Your task to perform on an android device: turn pop-ups off in chrome Image 0: 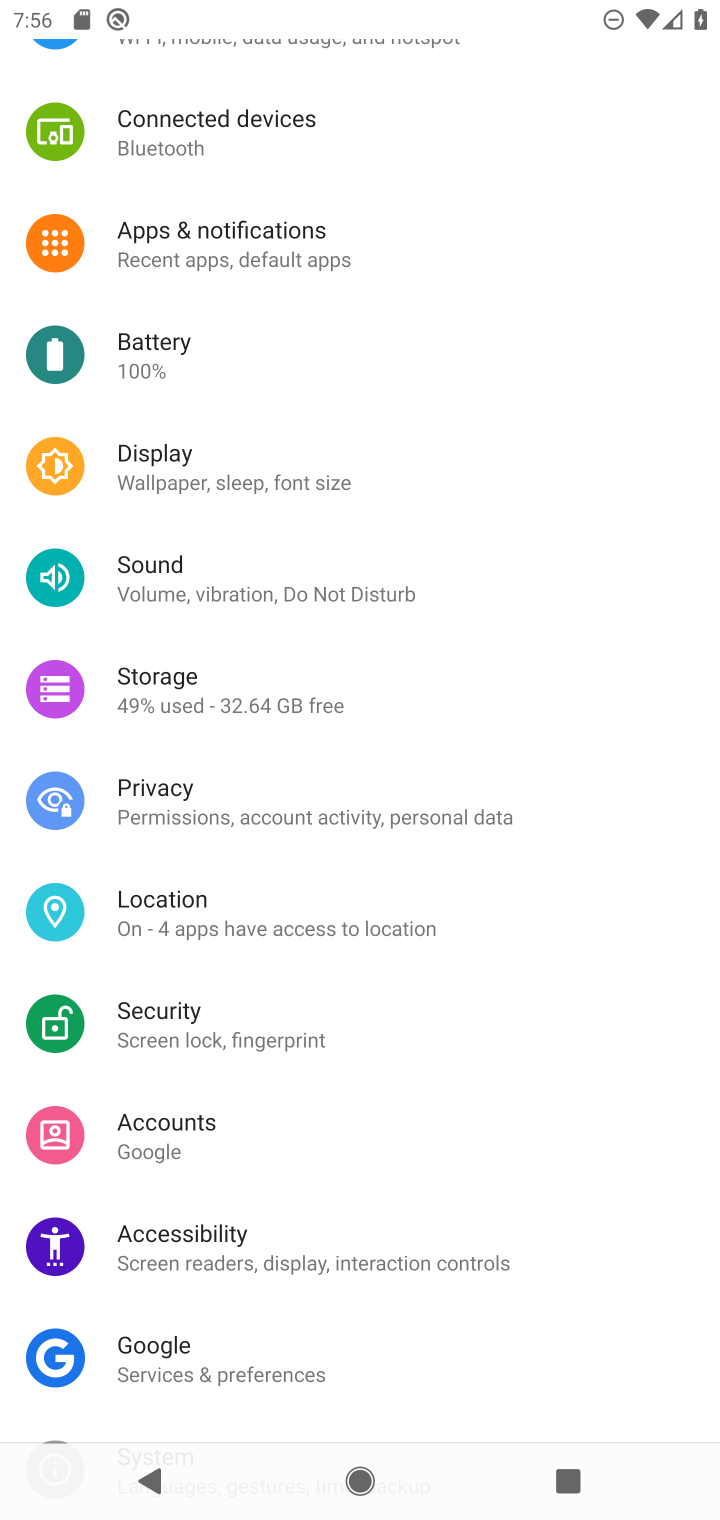
Step 0: press home button
Your task to perform on an android device: turn pop-ups off in chrome Image 1: 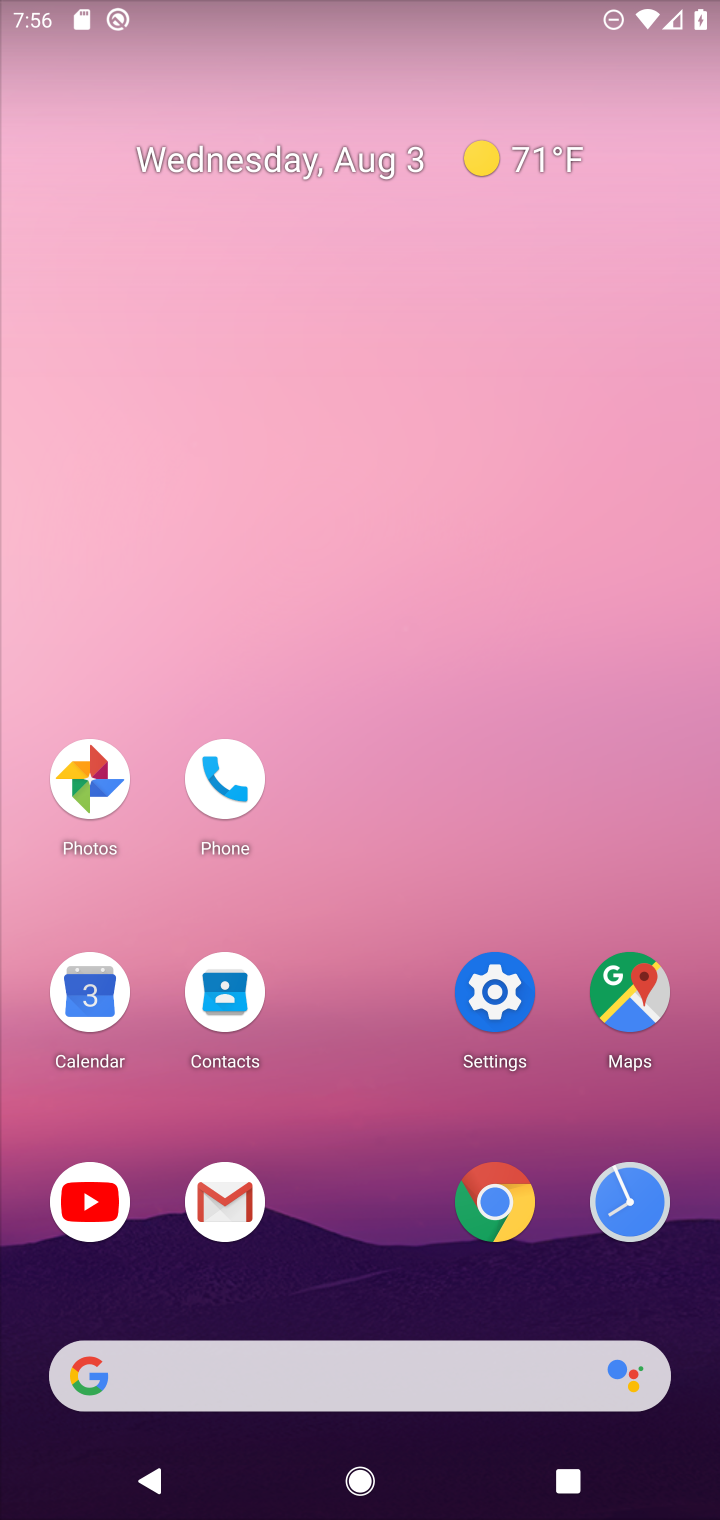
Step 1: click (486, 1221)
Your task to perform on an android device: turn pop-ups off in chrome Image 2: 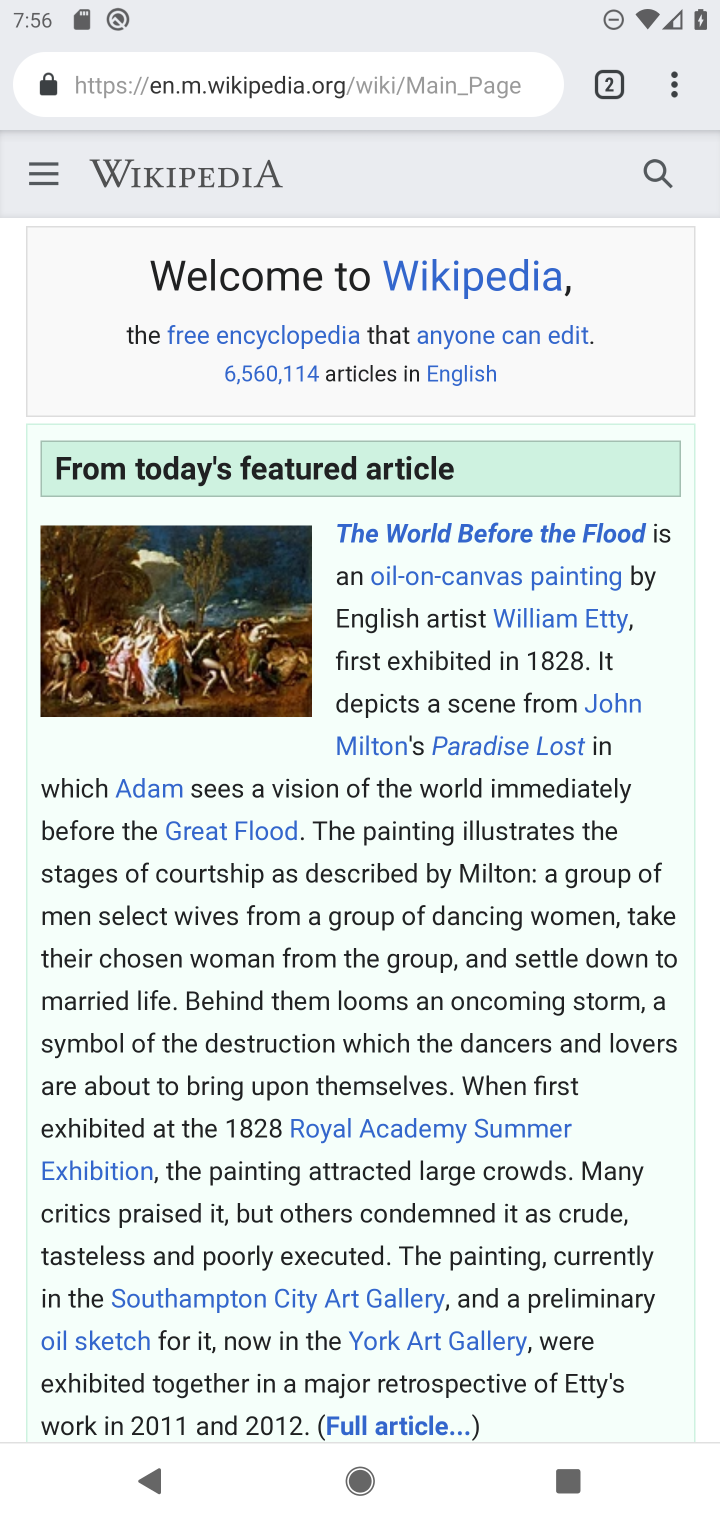
Step 2: click (676, 87)
Your task to perform on an android device: turn pop-ups off in chrome Image 3: 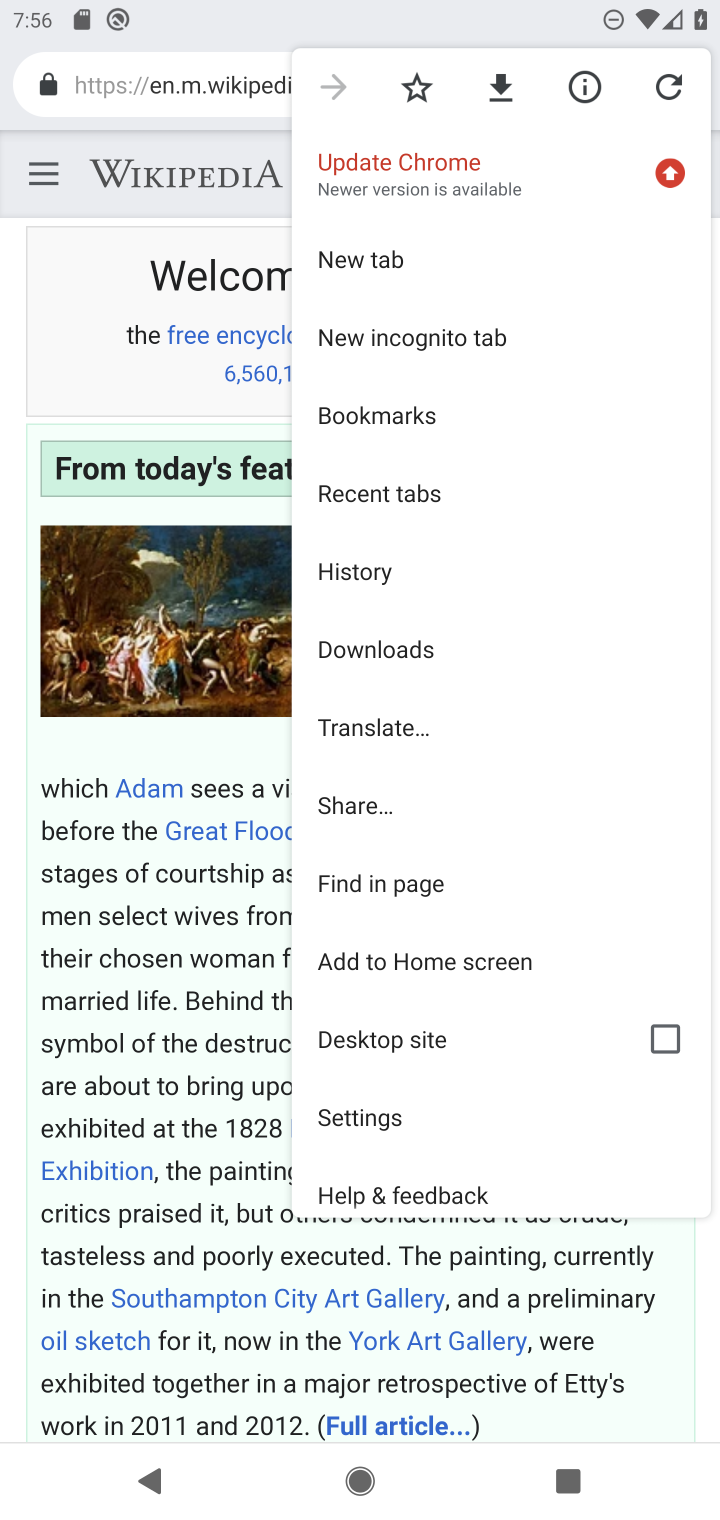
Step 3: click (354, 1128)
Your task to perform on an android device: turn pop-ups off in chrome Image 4: 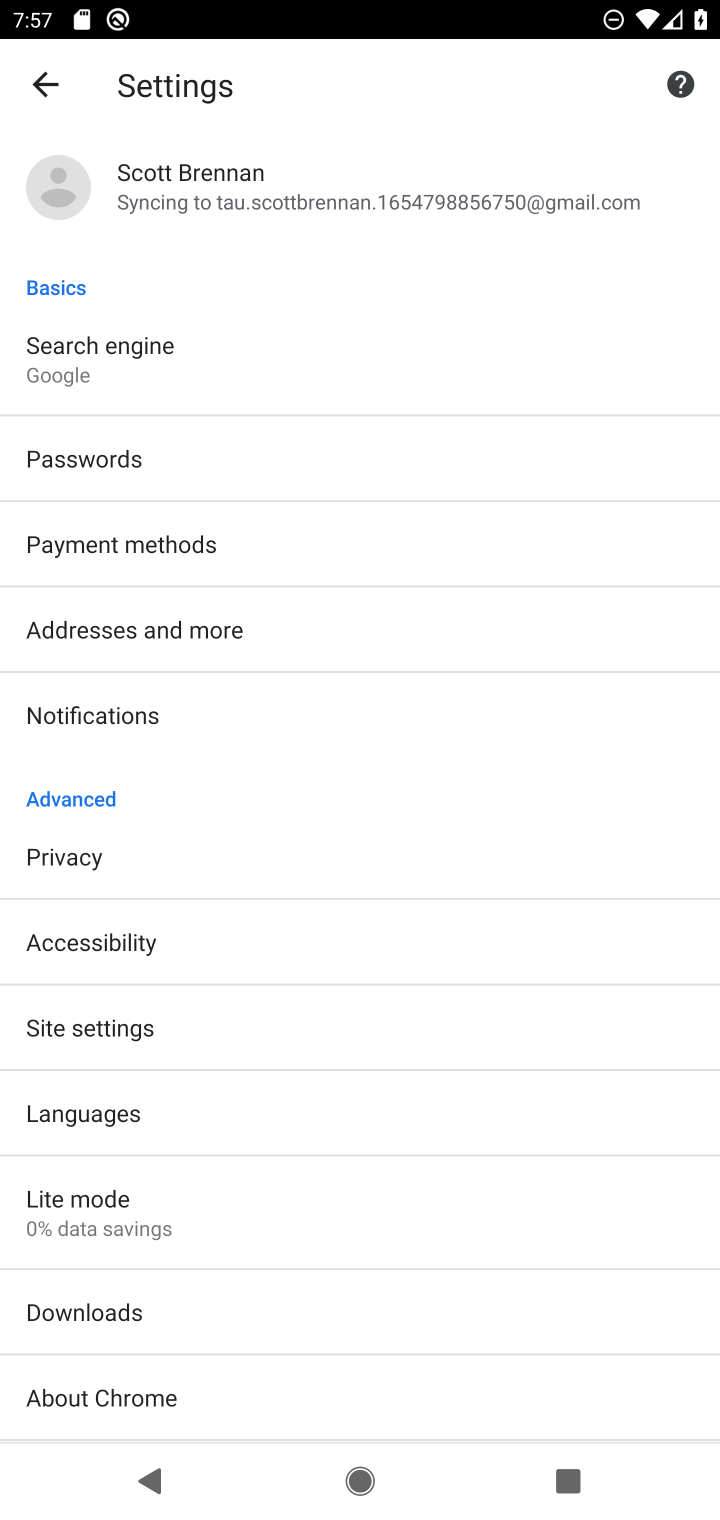
Step 4: click (134, 1029)
Your task to perform on an android device: turn pop-ups off in chrome Image 5: 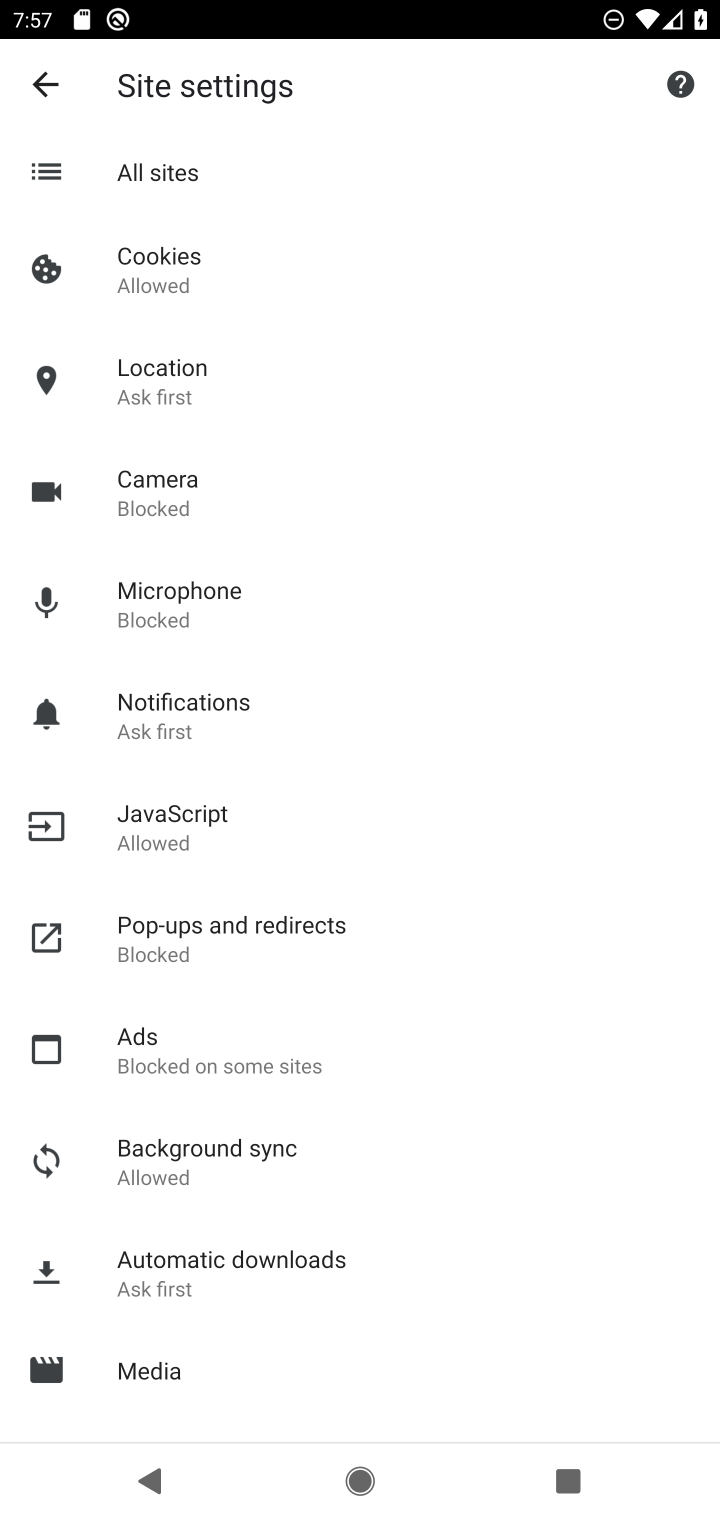
Step 5: click (224, 914)
Your task to perform on an android device: turn pop-ups off in chrome Image 6: 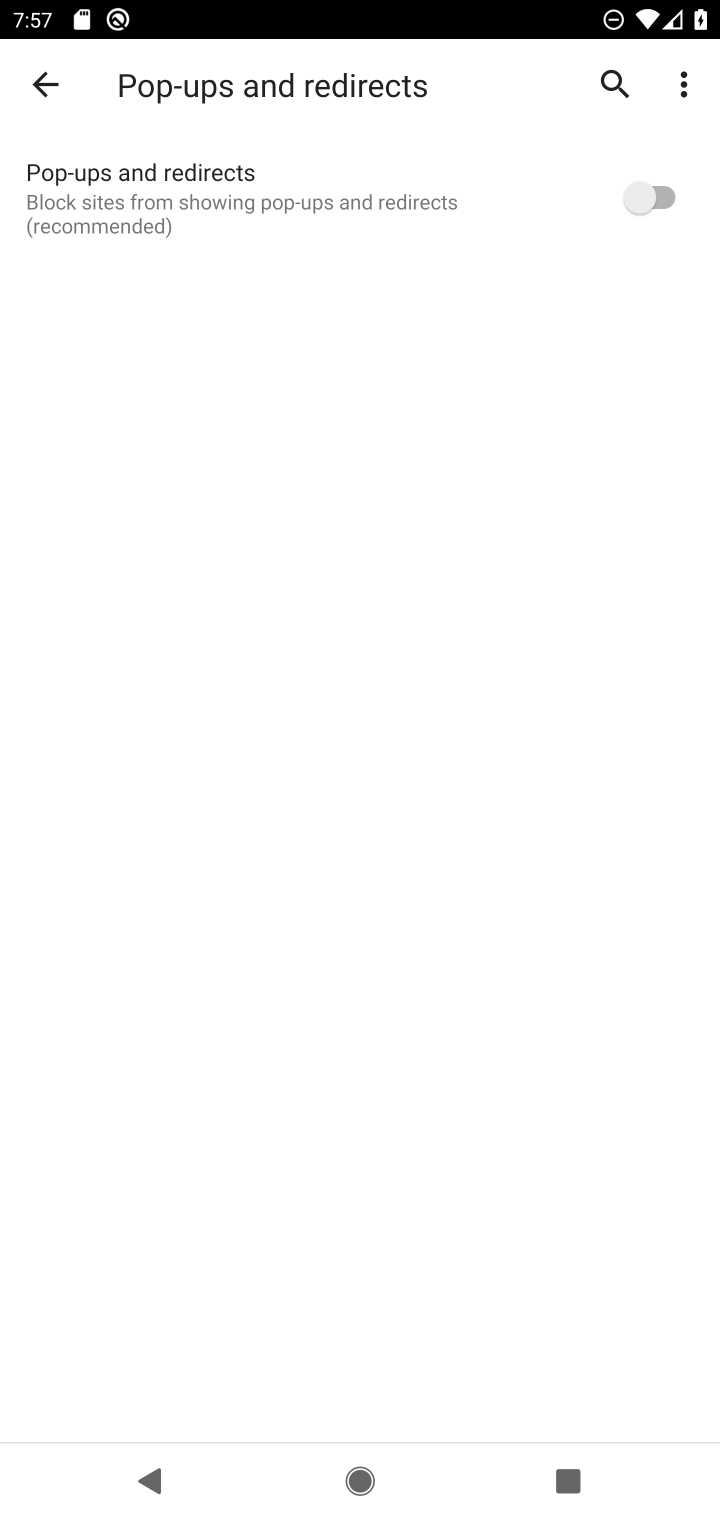
Step 6: task complete